Your task to perform on an android device: Go to Wikipedia Image 0: 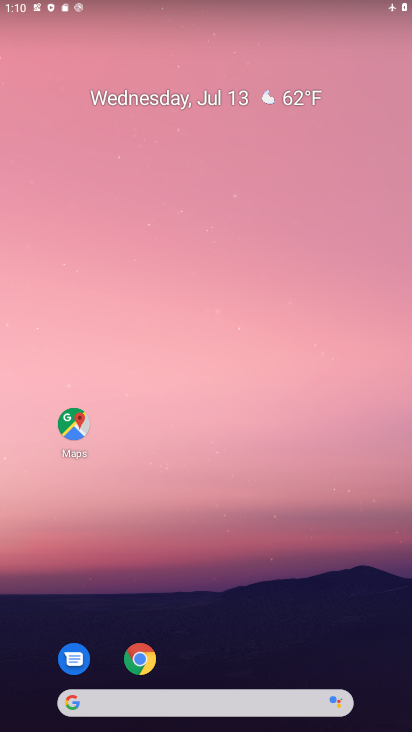
Step 0: click (140, 657)
Your task to perform on an android device: Go to Wikipedia Image 1: 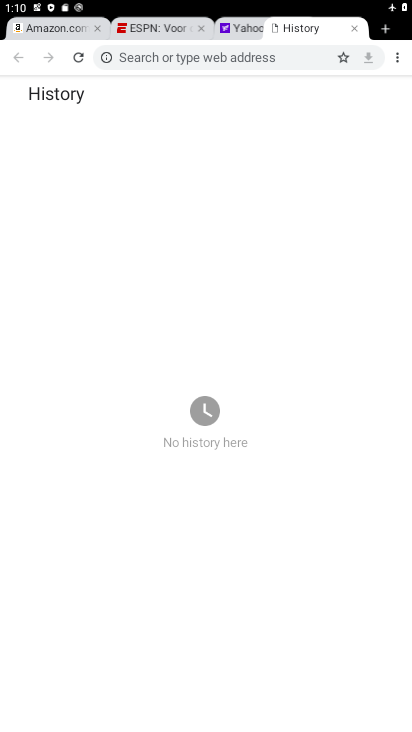
Step 1: click (399, 59)
Your task to perform on an android device: Go to Wikipedia Image 2: 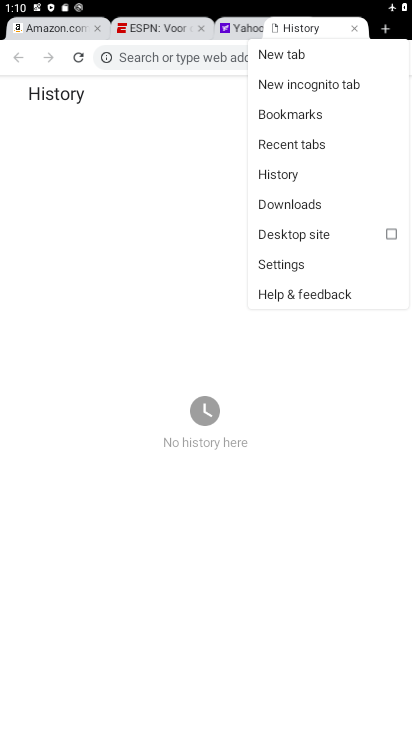
Step 2: click (286, 55)
Your task to perform on an android device: Go to Wikipedia Image 3: 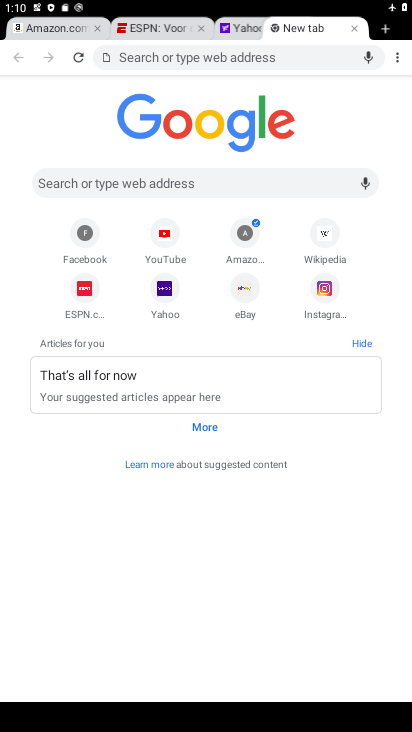
Step 3: click (321, 232)
Your task to perform on an android device: Go to Wikipedia Image 4: 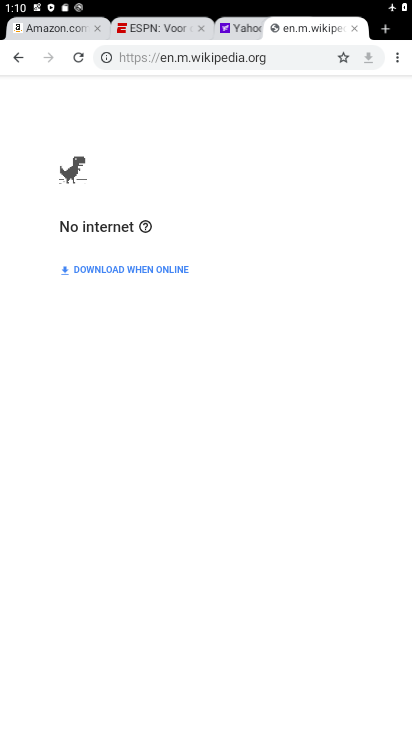
Step 4: task complete